Your task to perform on an android device: manage bookmarks in the chrome app Image 0: 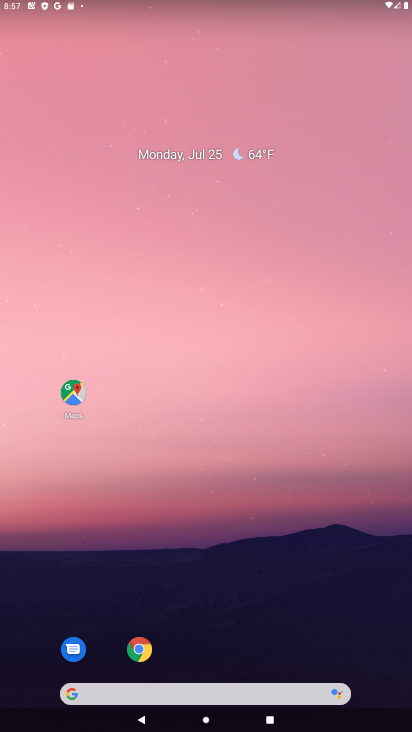
Step 0: click (150, 641)
Your task to perform on an android device: manage bookmarks in the chrome app Image 1: 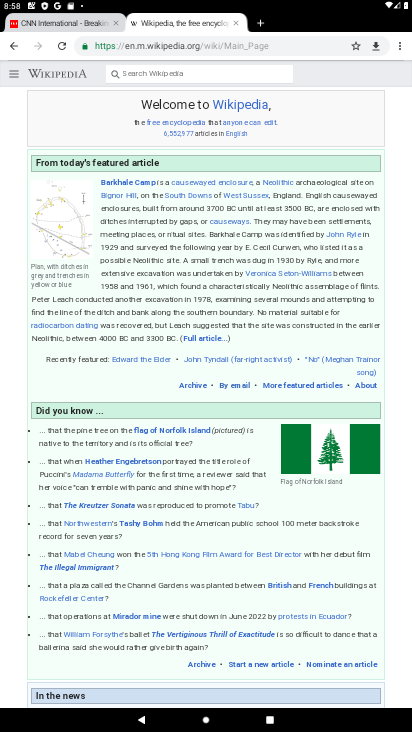
Step 1: click (400, 51)
Your task to perform on an android device: manage bookmarks in the chrome app Image 2: 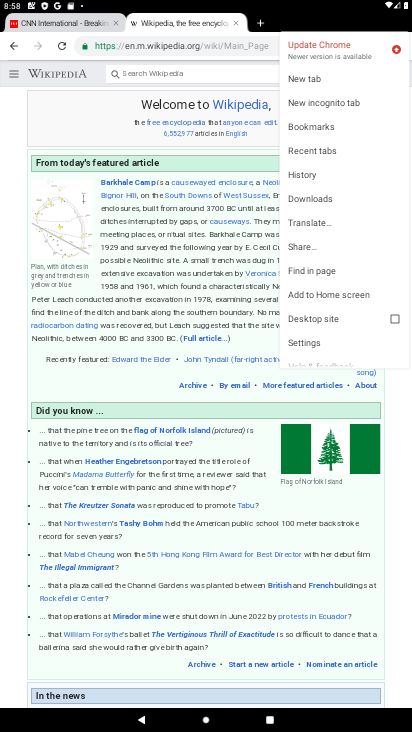
Step 2: click (320, 128)
Your task to perform on an android device: manage bookmarks in the chrome app Image 3: 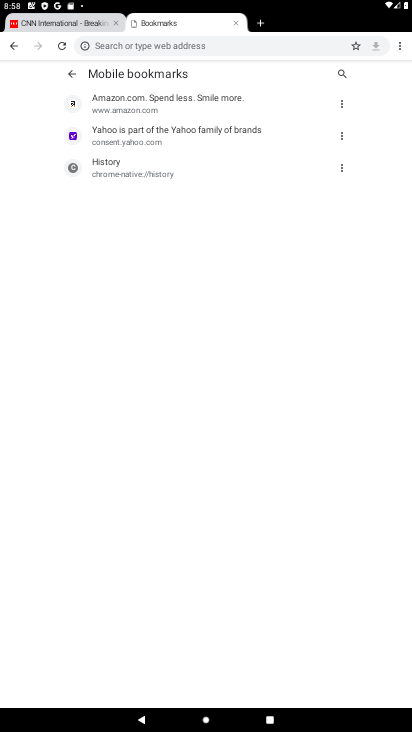
Step 3: click (134, 142)
Your task to perform on an android device: manage bookmarks in the chrome app Image 4: 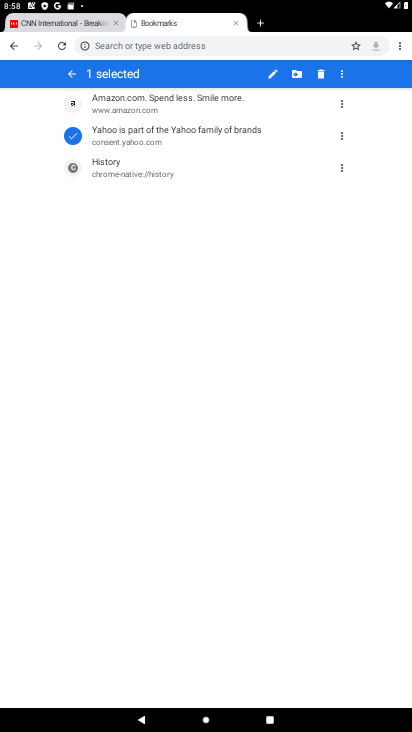
Step 4: click (71, 101)
Your task to perform on an android device: manage bookmarks in the chrome app Image 5: 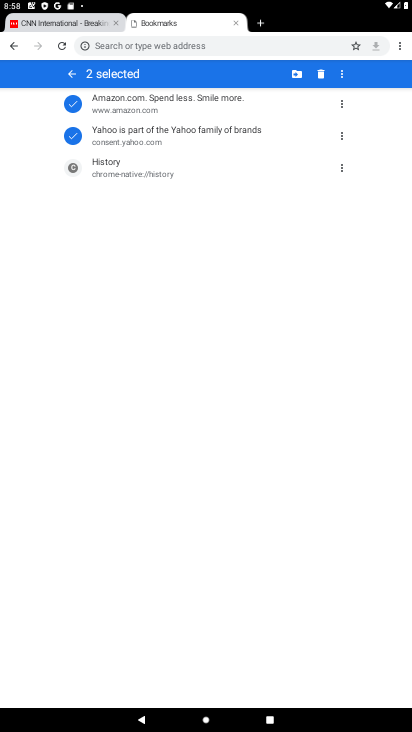
Step 5: click (294, 75)
Your task to perform on an android device: manage bookmarks in the chrome app Image 6: 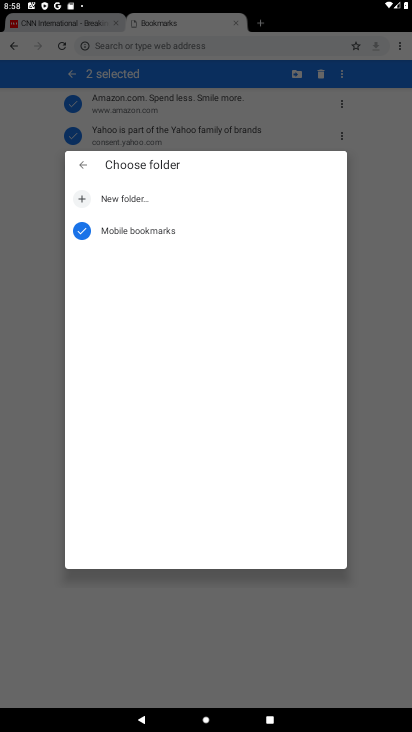
Step 6: click (106, 198)
Your task to perform on an android device: manage bookmarks in the chrome app Image 7: 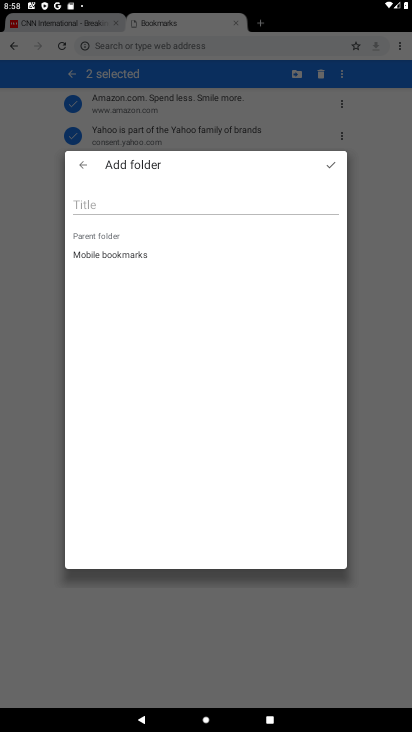
Step 7: click (158, 199)
Your task to perform on an android device: manage bookmarks in the chrome app Image 8: 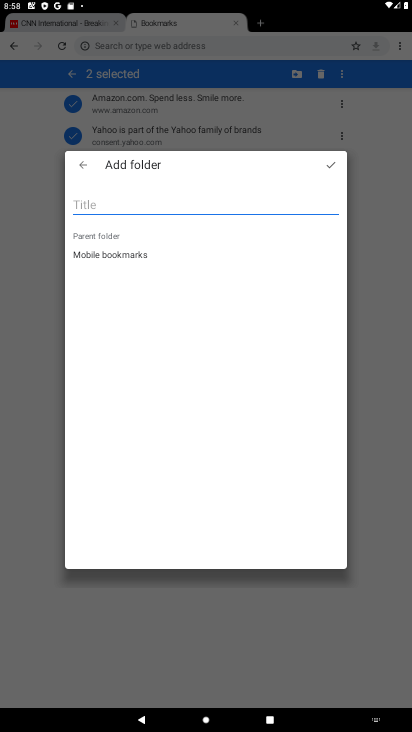
Step 8: type "gg"
Your task to perform on an android device: manage bookmarks in the chrome app Image 9: 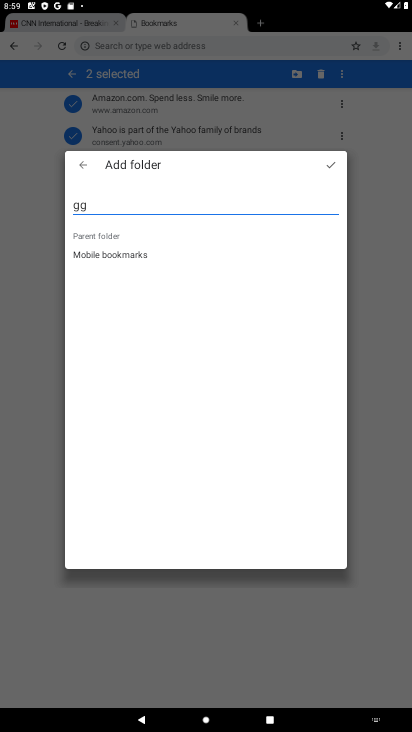
Step 9: click (331, 166)
Your task to perform on an android device: manage bookmarks in the chrome app Image 10: 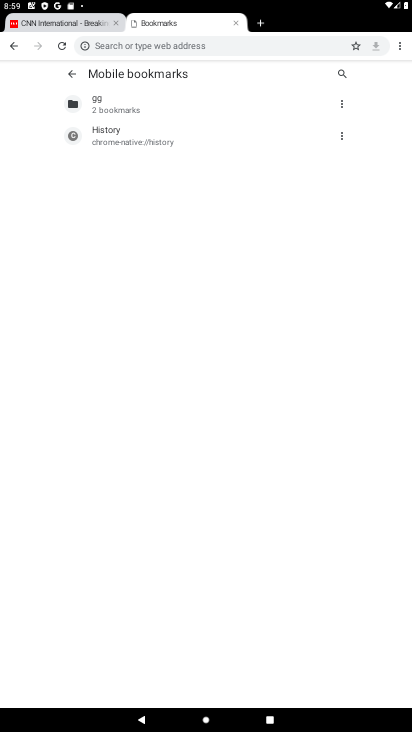
Step 10: task complete